Your task to perform on an android device: change the clock display to show seconds Image 0: 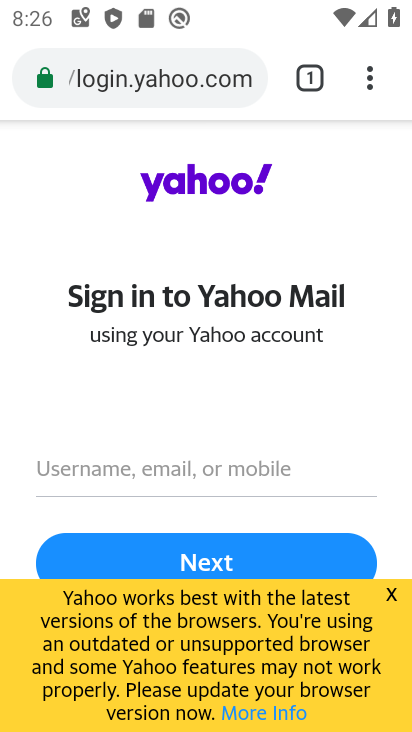
Step 0: press home button
Your task to perform on an android device: change the clock display to show seconds Image 1: 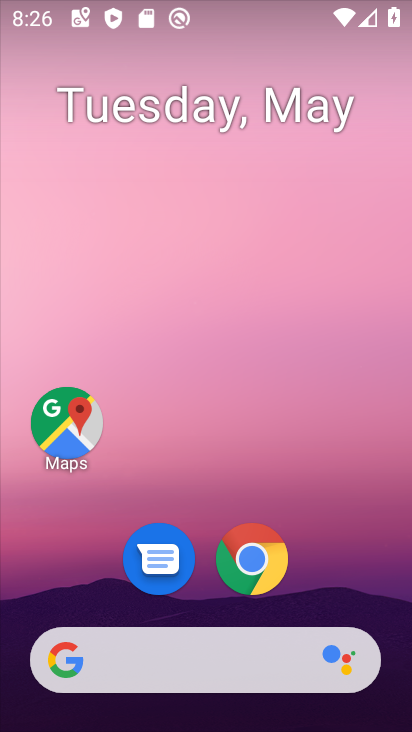
Step 1: drag from (325, 563) to (231, 126)
Your task to perform on an android device: change the clock display to show seconds Image 2: 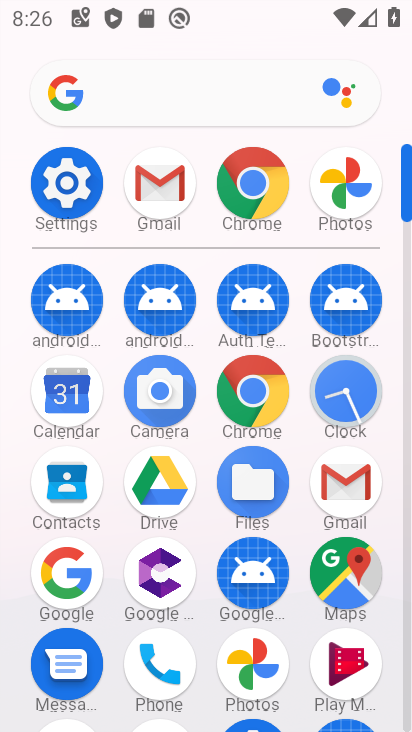
Step 2: click (335, 391)
Your task to perform on an android device: change the clock display to show seconds Image 3: 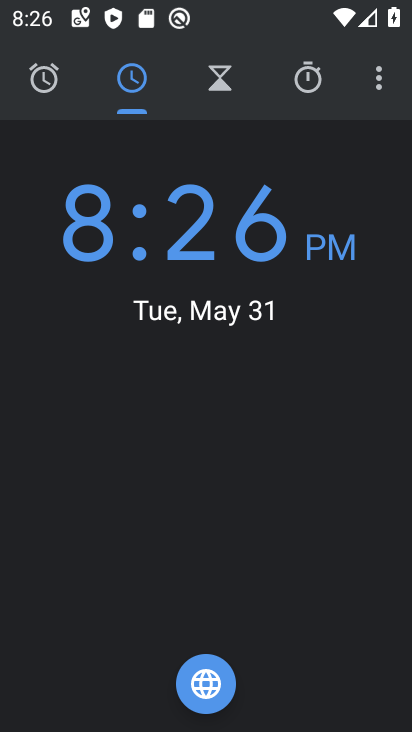
Step 3: click (379, 84)
Your task to perform on an android device: change the clock display to show seconds Image 4: 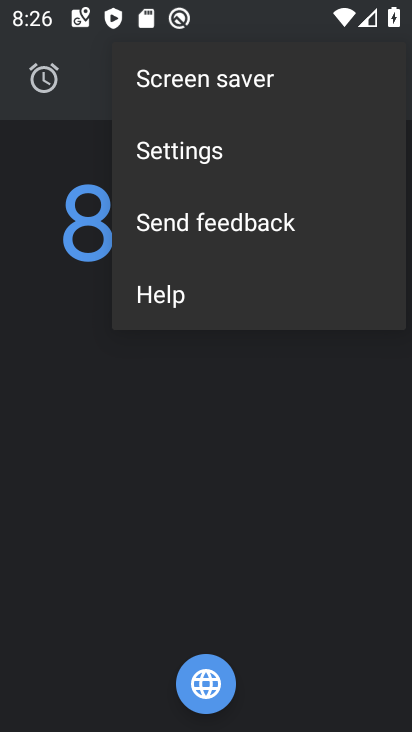
Step 4: click (181, 157)
Your task to perform on an android device: change the clock display to show seconds Image 5: 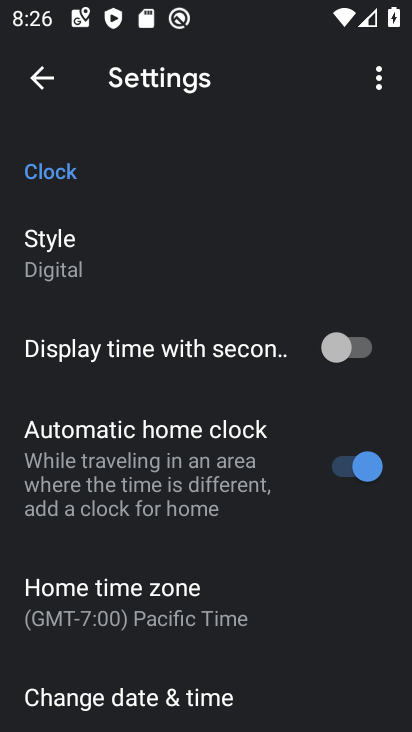
Step 5: click (338, 345)
Your task to perform on an android device: change the clock display to show seconds Image 6: 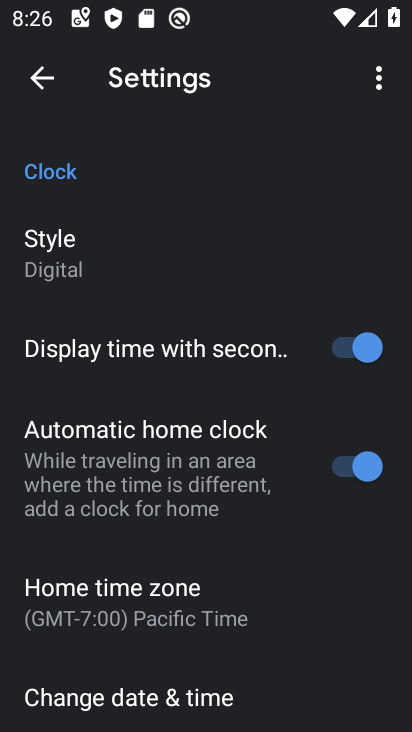
Step 6: task complete